Your task to perform on an android device: uninstall "Messenger Lite" Image 0: 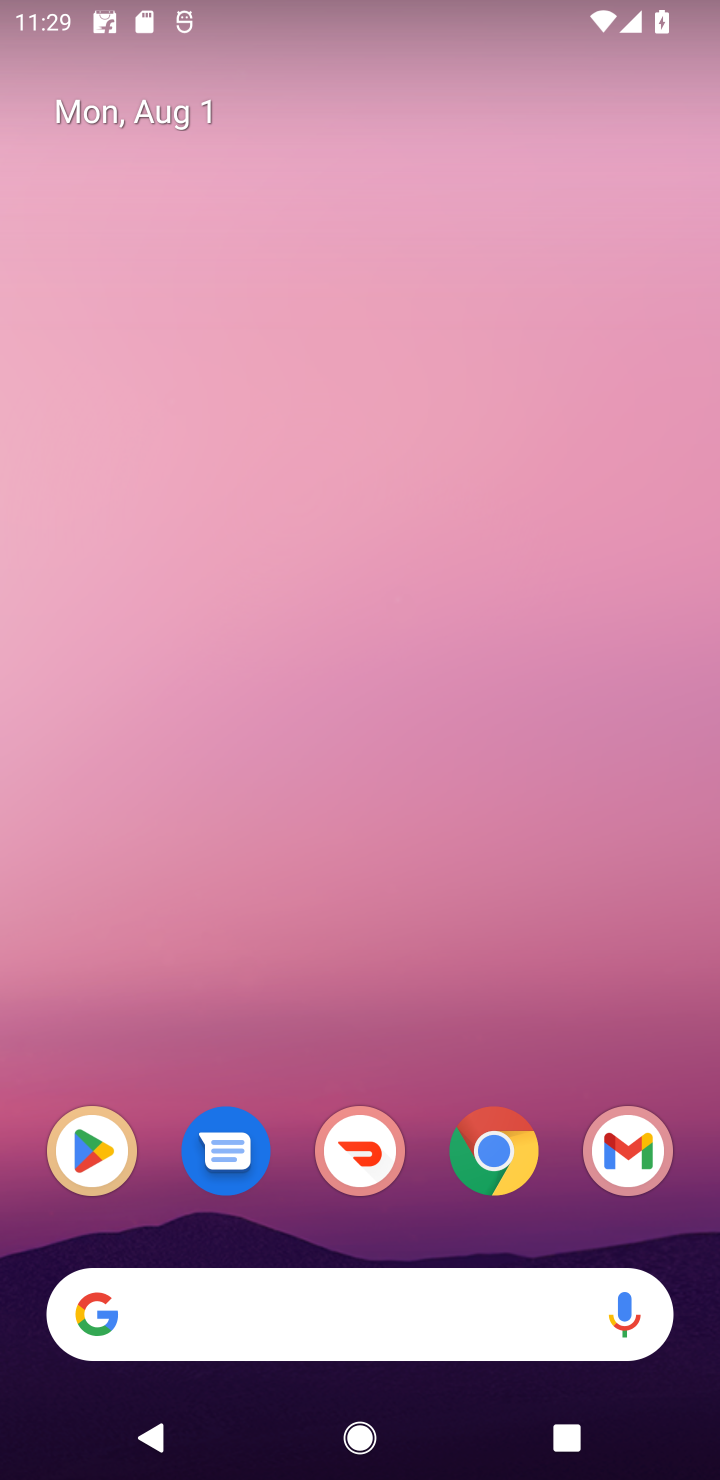
Step 0: click (78, 1189)
Your task to perform on an android device: uninstall "Messenger Lite" Image 1: 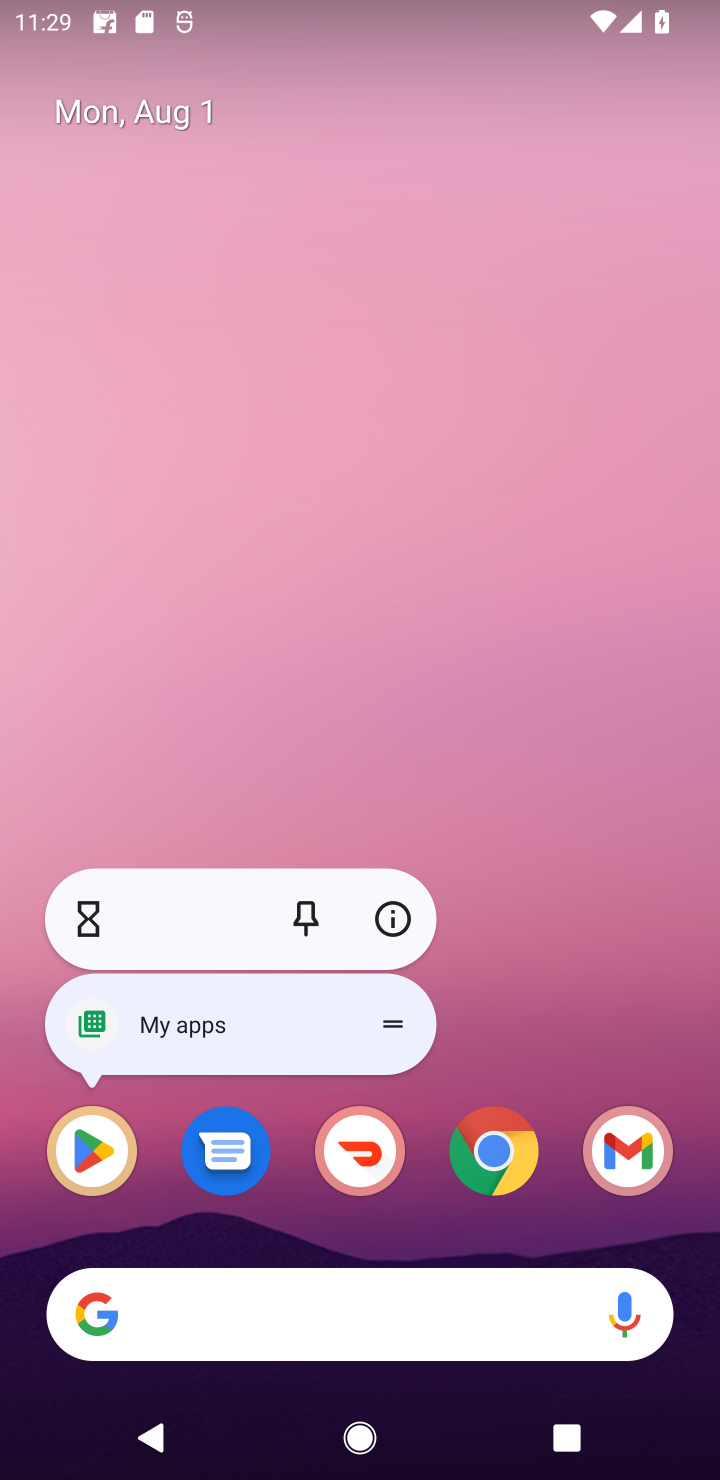
Step 1: click (78, 1189)
Your task to perform on an android device: uninstall "Messenger Lite" Image 2: 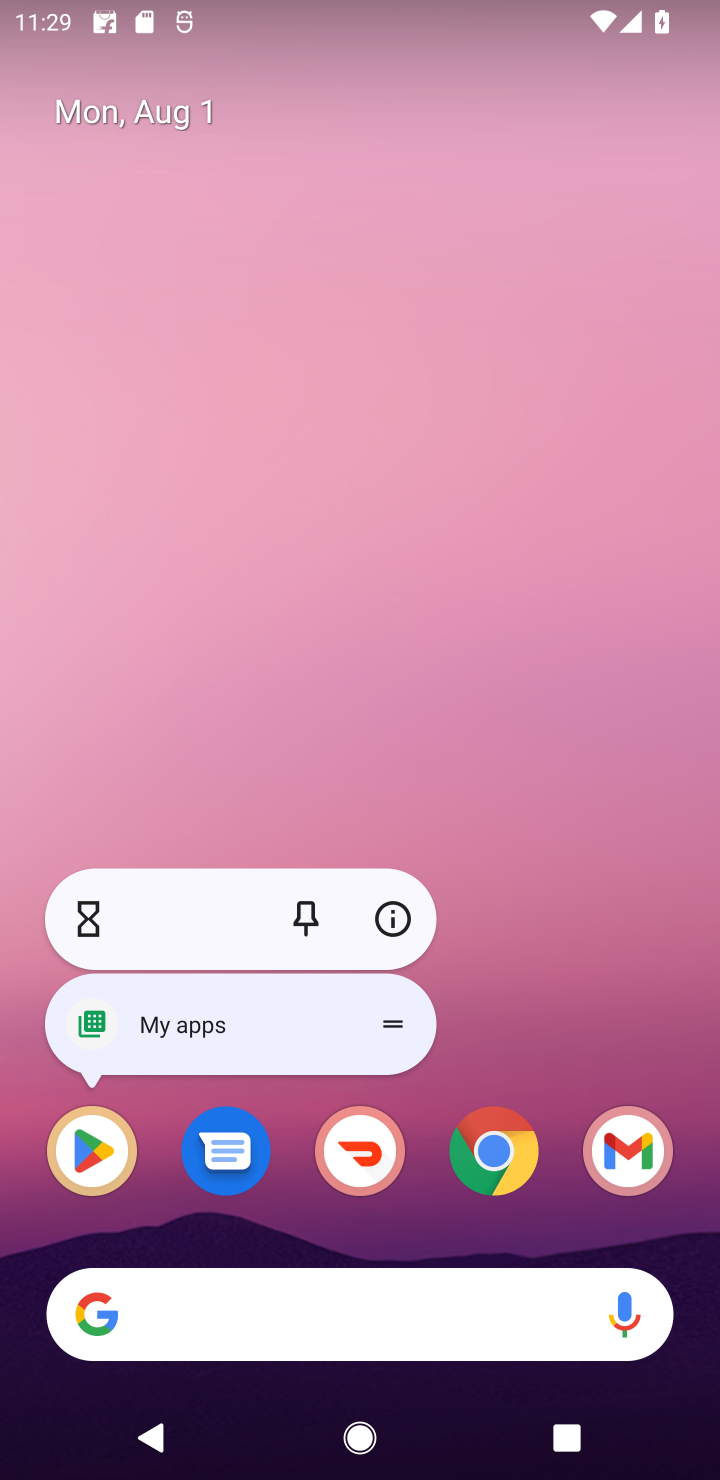
Step 2: click (87, 1161)
Your task to perform on an android device: uninstall "Messenger Lite" Image 3: 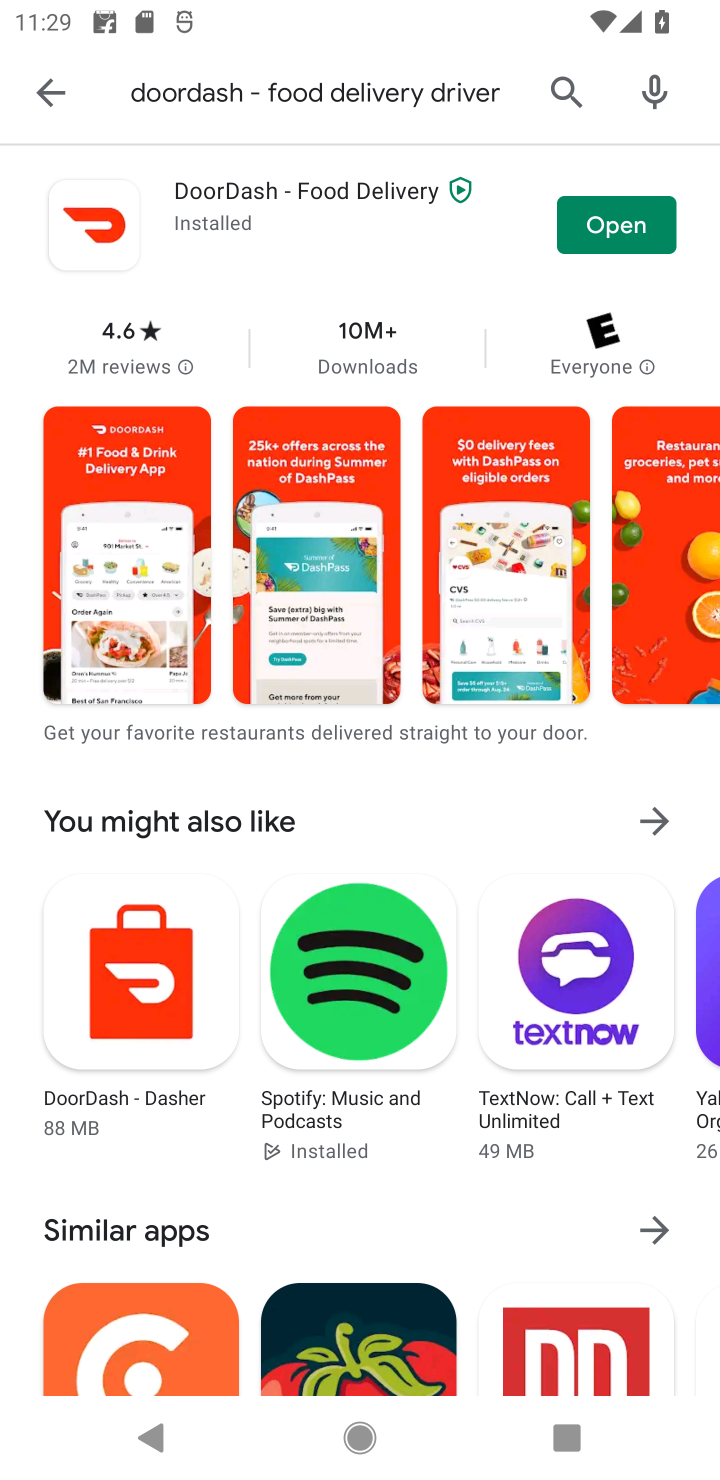
Step 3: click (551, 101)
Your task to perform on an android device: uninstall "Messenger Lite" Image 4: 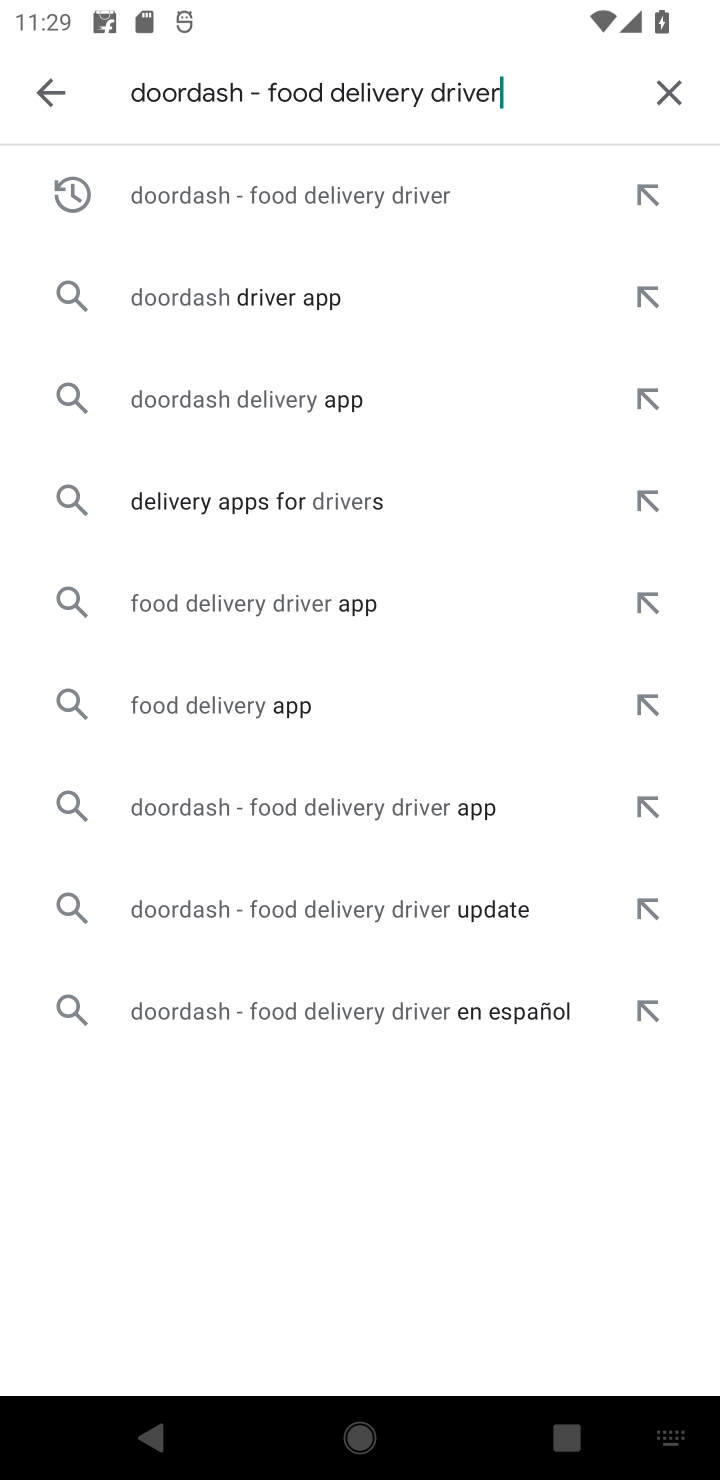
Step 4: click (638, 68)
Your task to perform on an android device: uninstall "Messenger Lite" Image 5: 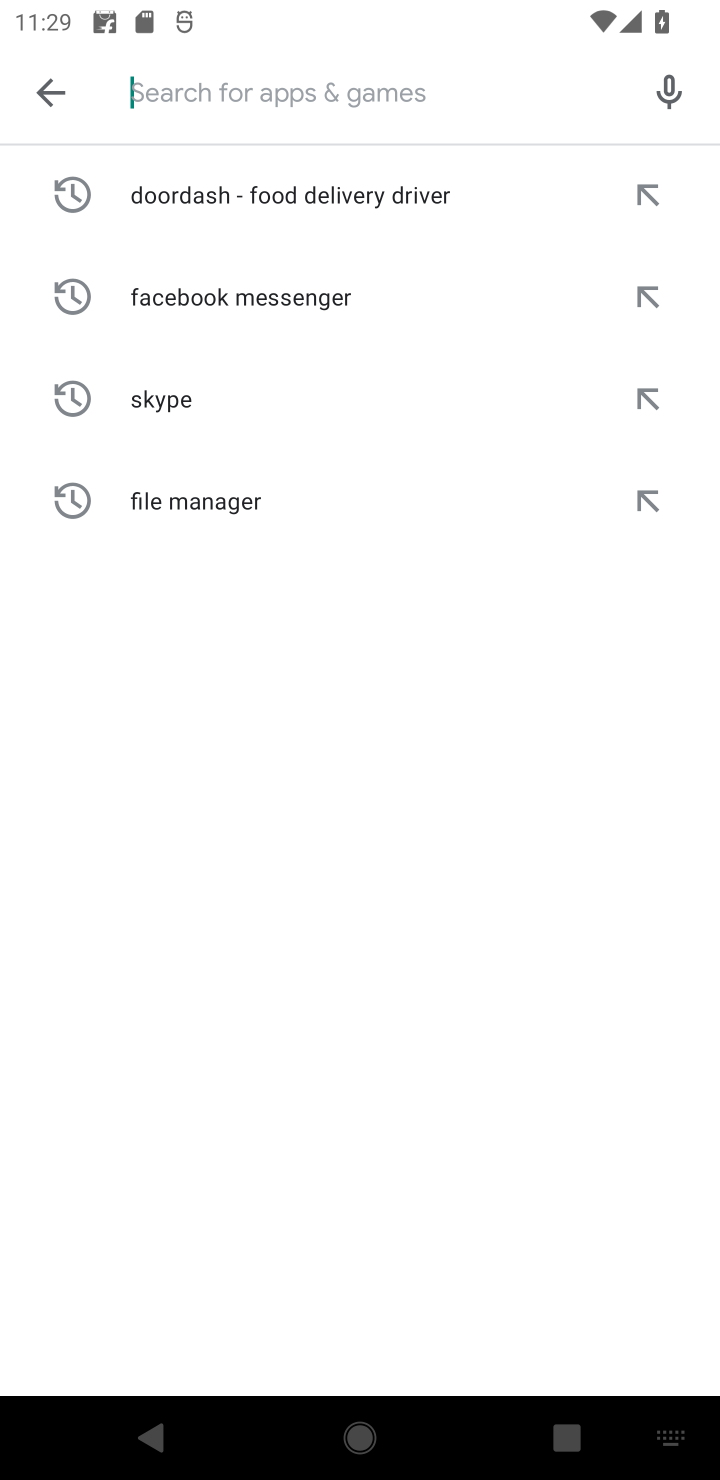
Step 5: type "Messenger Lite"
Your task to perform on an android device: uninstall "Messenger Lite" Image 6: 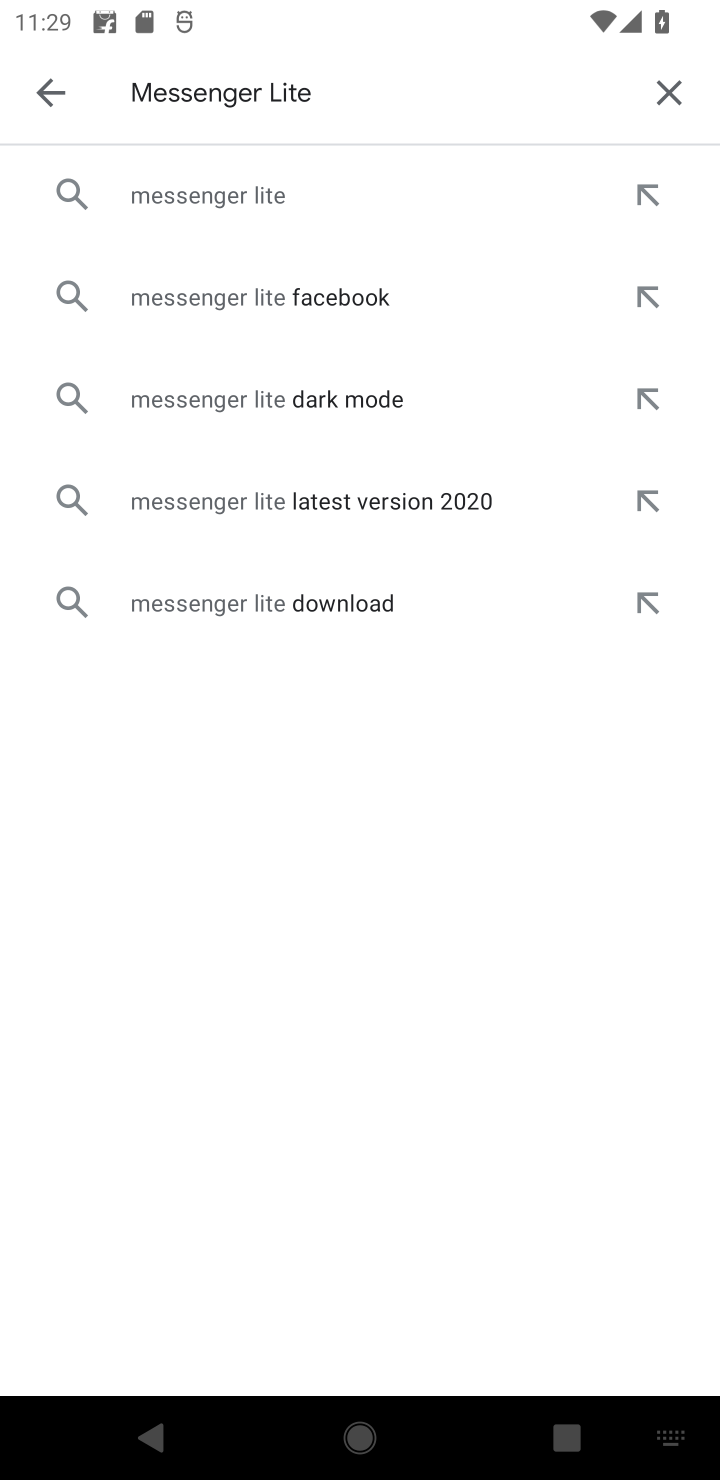
Step 6: click (241, 198)
Your task to perform on an android device: uninstall "Messenger Lite" Image 7: 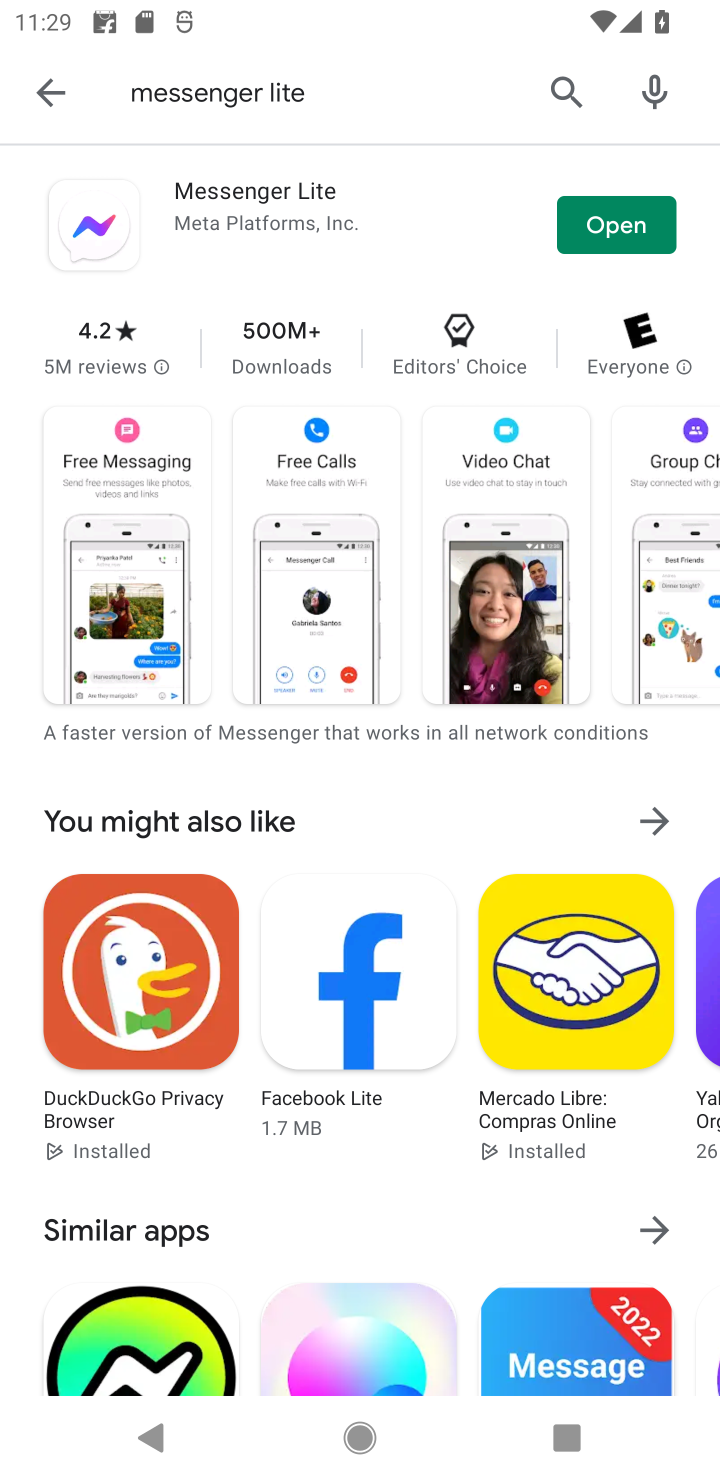
Step 7: click (255, 181)
Your task to perform on an android device: uninstall "Messenger Lite" Image 8: 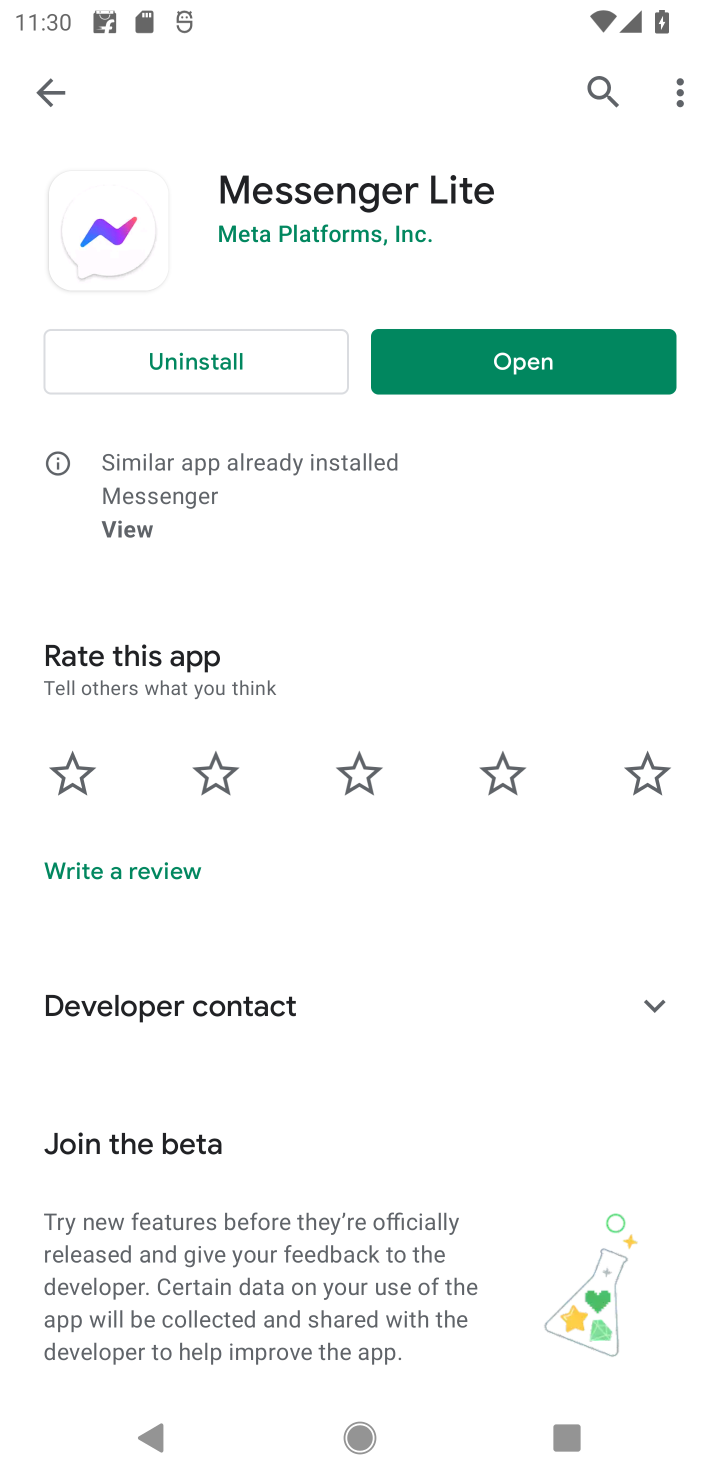
Step 8: click (222, 346)
Your task to perform on an android device: uninstall "Messenger Lite" Image 9: 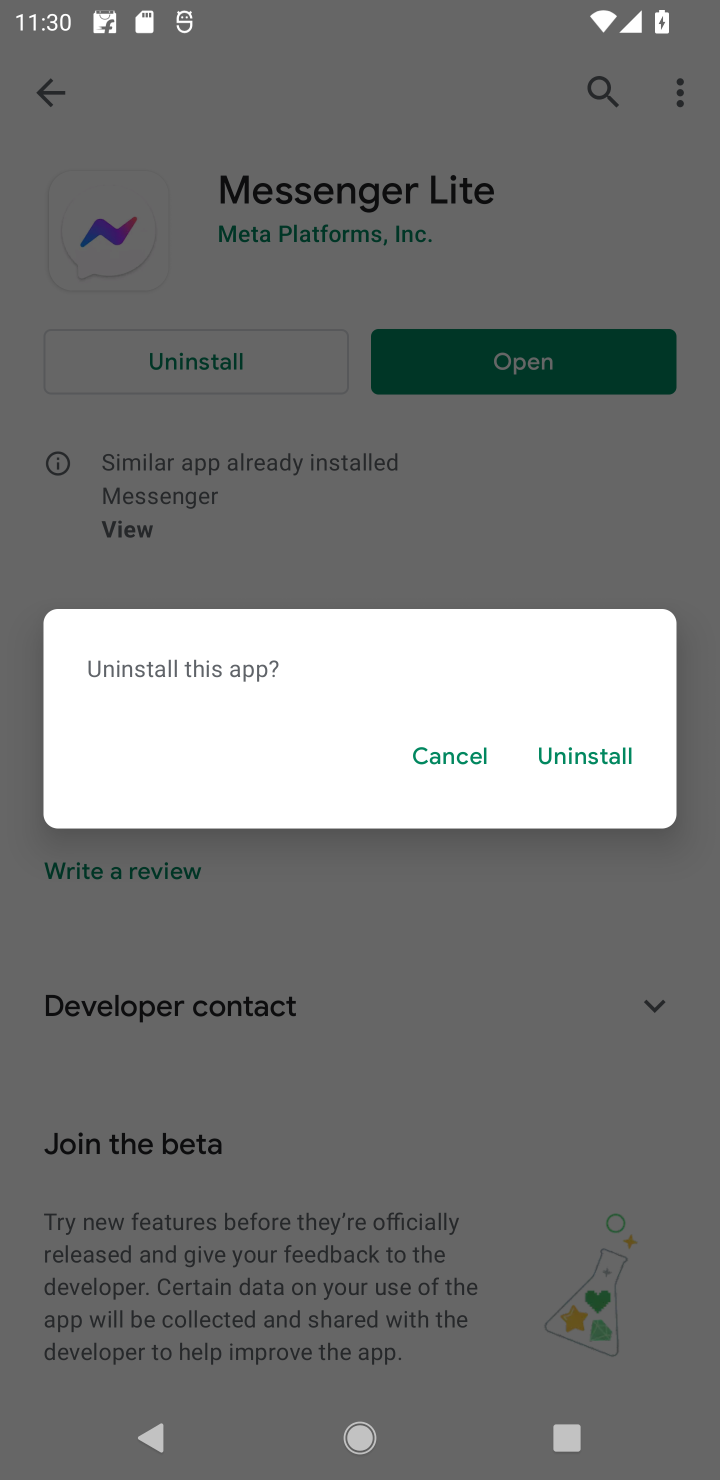
Step 9: click (579, 753)
Your task to perform on an android device: uninstall "Messenger Lite" Image 10: 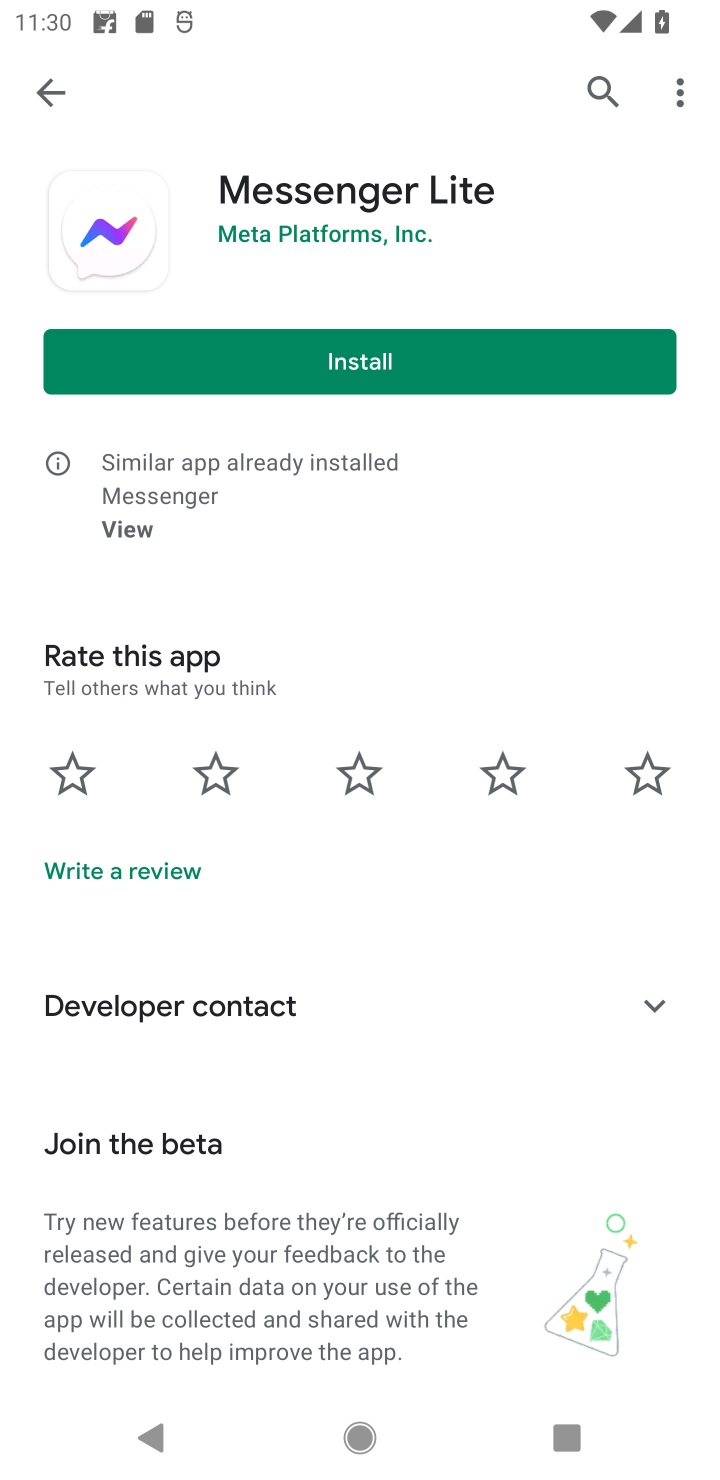
Step 10: task complete